Your task to perform on an android device: star an email in the gmail app Image 0: 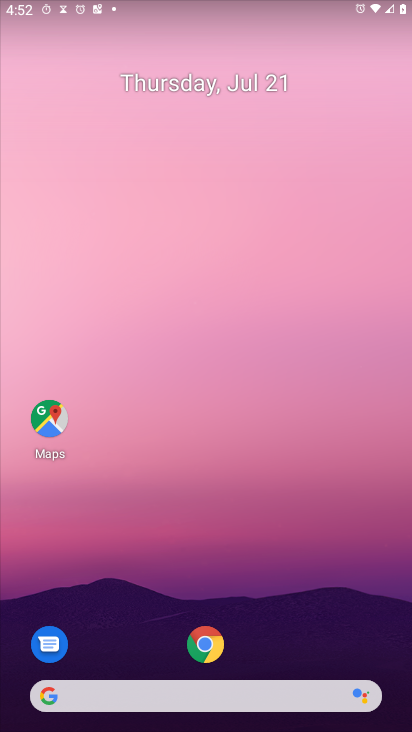
Step 0: press home button
Your task to perform on an android device: star an email in the gmail app Image 1: 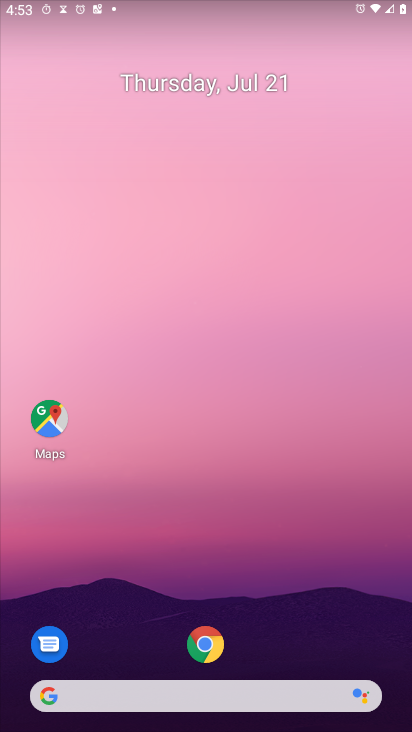
Step 1: drag from (272, 638) to (273, 69)
Your task to perform on an android device: star an email in the gmail app Image 2: 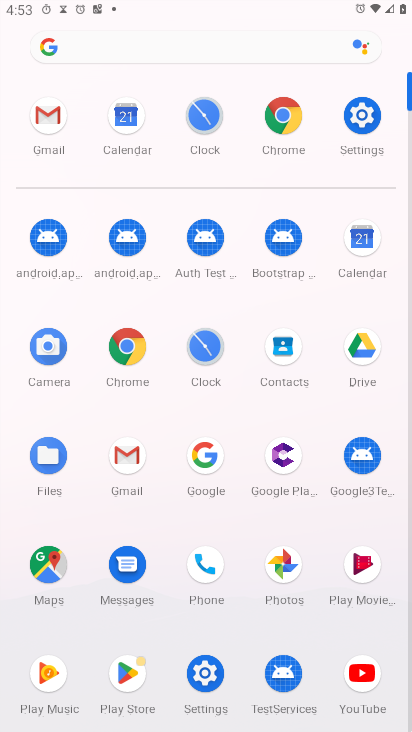
Step 2: click (50, 112)
Your task to perform on an android device: star an email in the gmail app Image 3: 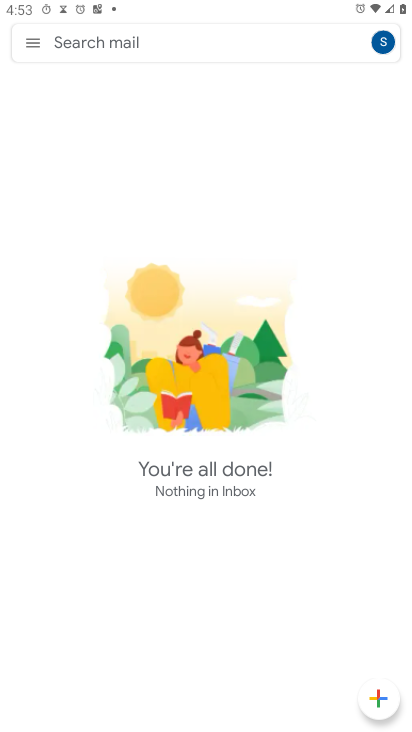
Step 3: click (33, 42)
Your task to perform on an android device: star an email in the gmail app Image 4: 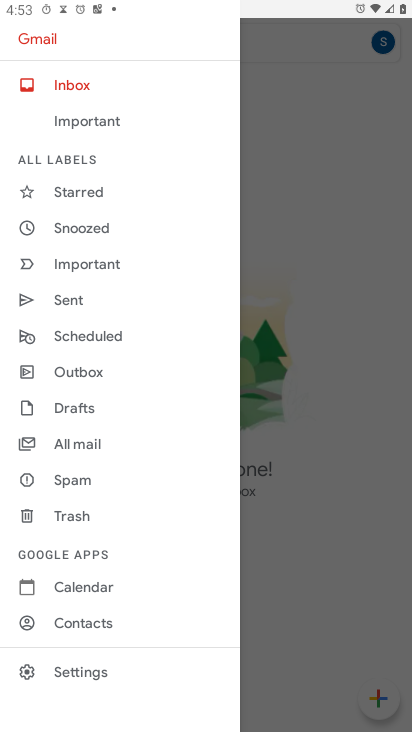
Step 4: click (73, 445)
Your task to perform on an android device: star an email in the gmail app Image 5: 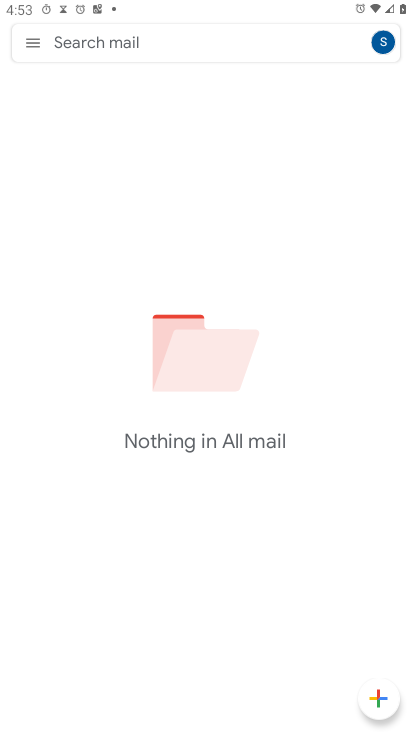
Step 5: task complete